Your task to perform on an android device: Open accessibility settings Image 0: 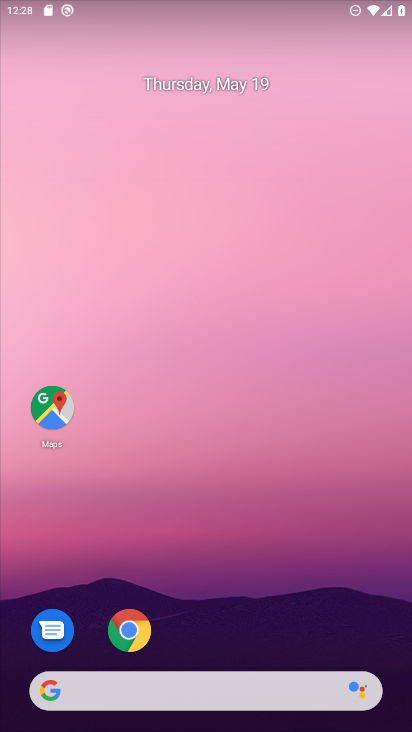
Step 0: drag from (224, 657) to (245, 276)
Your task to perform on an android device: Open accessibility settings Image 1: 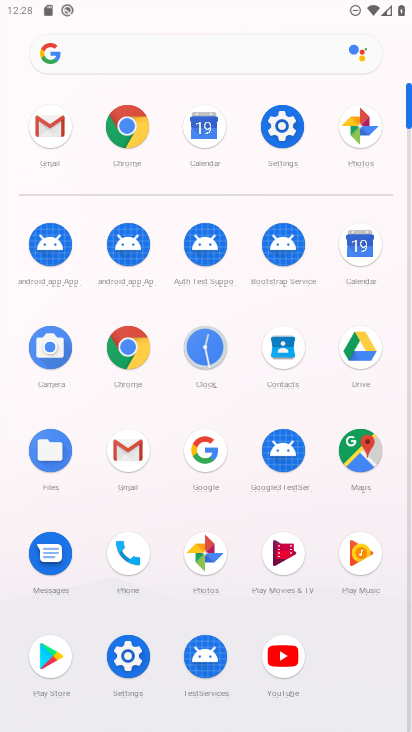
Step 1: click (275, 119)
Your task to perform on an android device: Open accessibility settings Image 2: 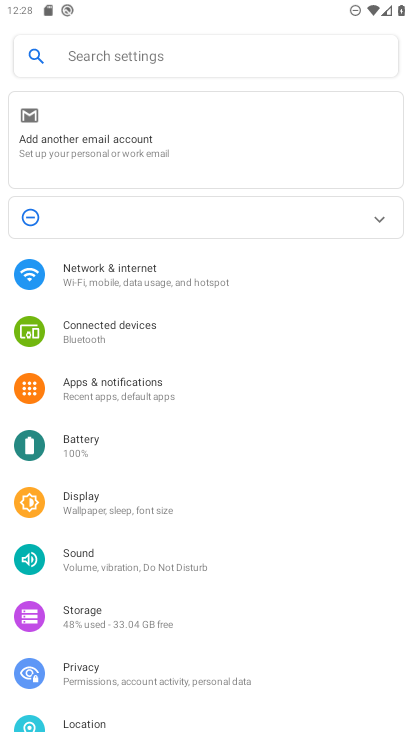
Step 2: drag from (171, 619) to (263, 290)
Your task to perform on an android device: Open accessibility settings Image 3: 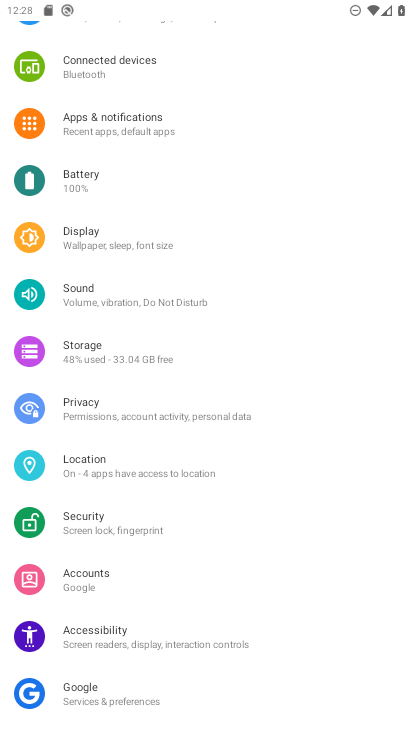
Step 3: click (184, 630)
Your task to perform on an android device: Open accessibility settings Image 4: 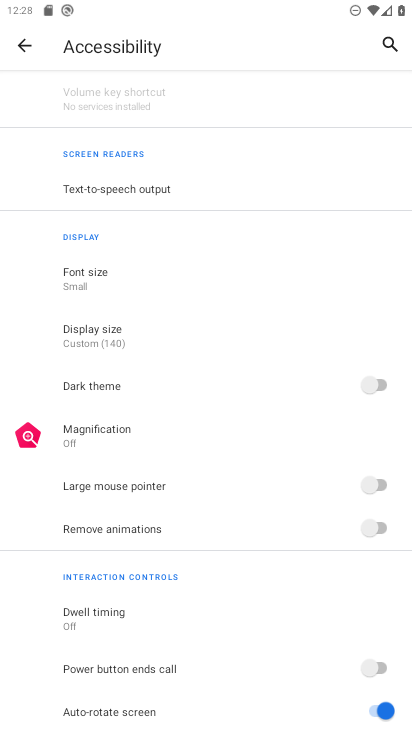
Step 4: task complete